Your task to perform on an android device: What's the weather? Image 0: 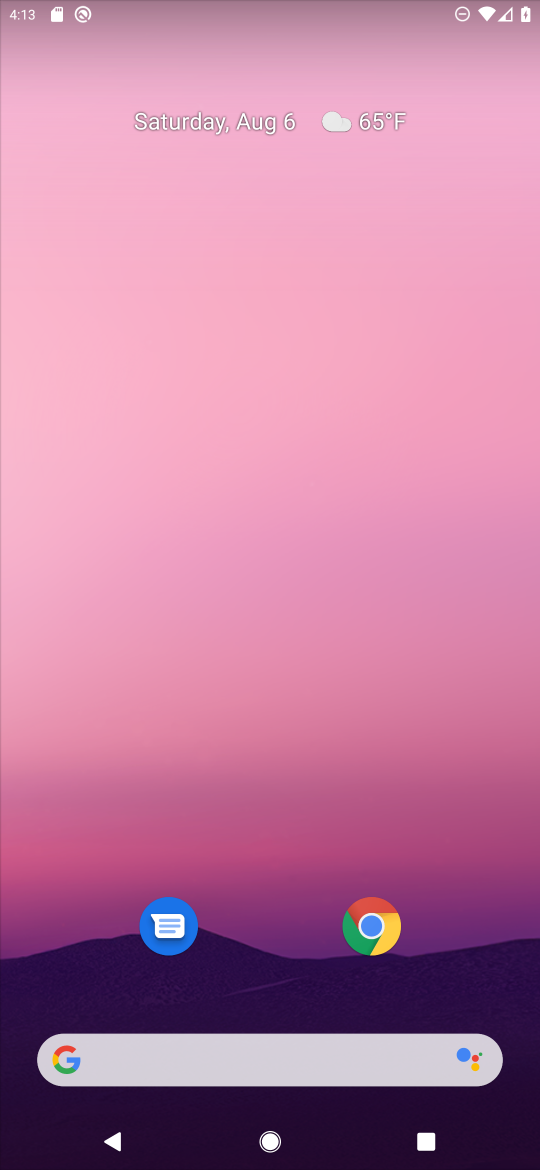
Step 0: drag from (255, 963) to (241, 471)
Your task to perform on an android device: What's the weather? Image 1: 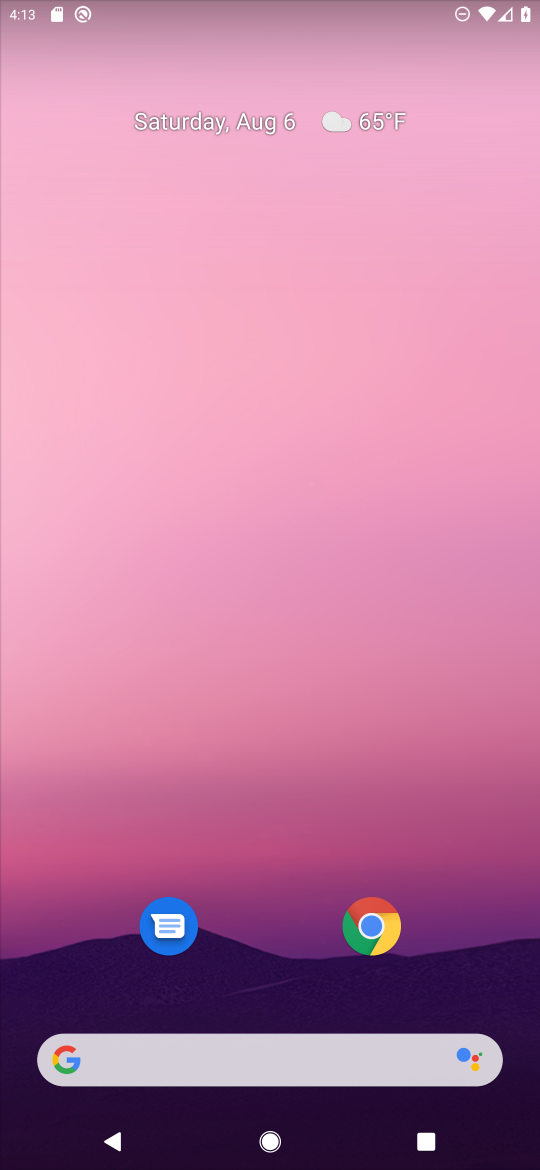
Step 1: drag from (277, 907) to (222, 353)
Your task to perform on an android device: What's the weather? Image 2: 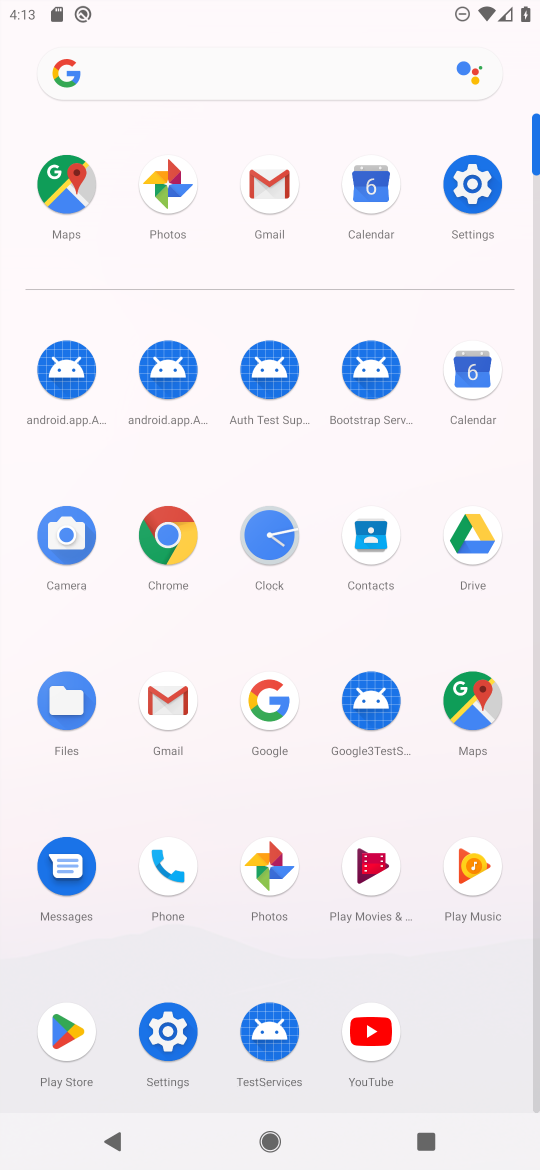
Step 2: click (273, 725)
Your task to perform on an android device: What's the weather? Image 3: 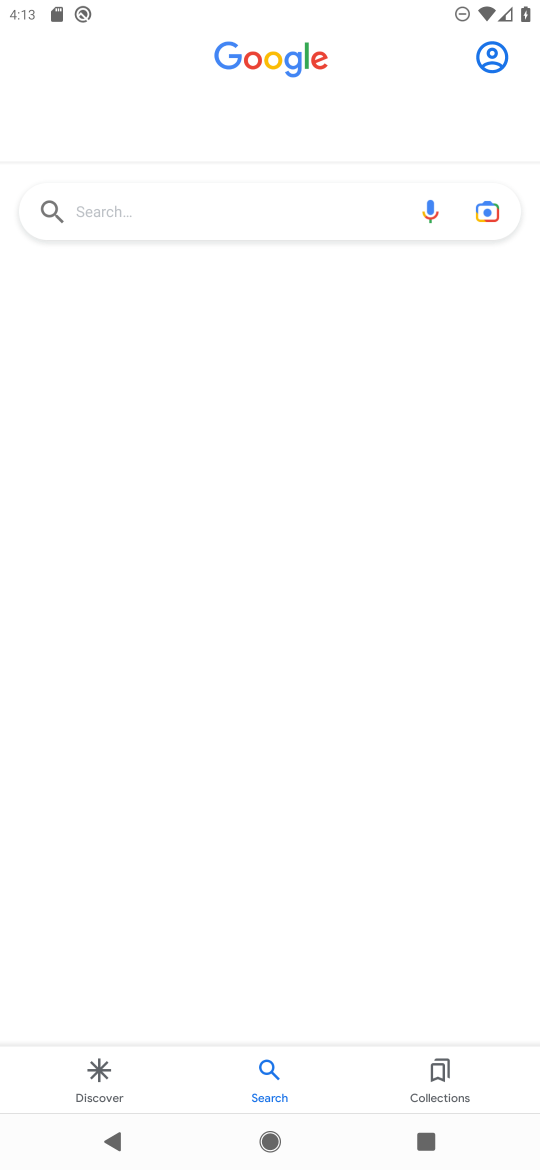
Step 3: click (221, 190)
Your task to perform on an android device: What's the weather? Image 4: 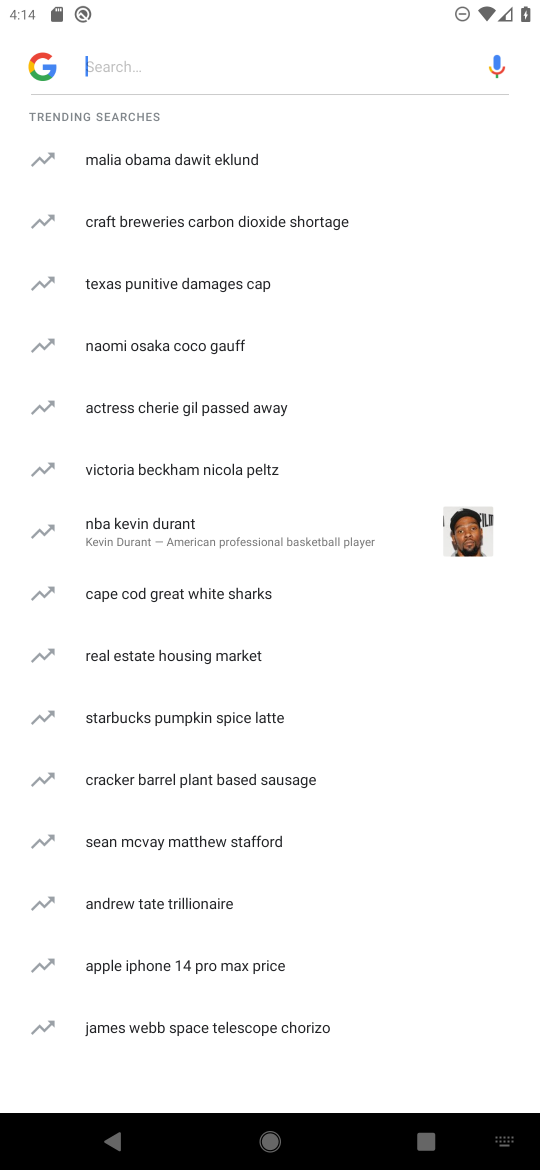
Step 4: type "weather"
Your task to perform on an android device: What's the weather? Image 5: 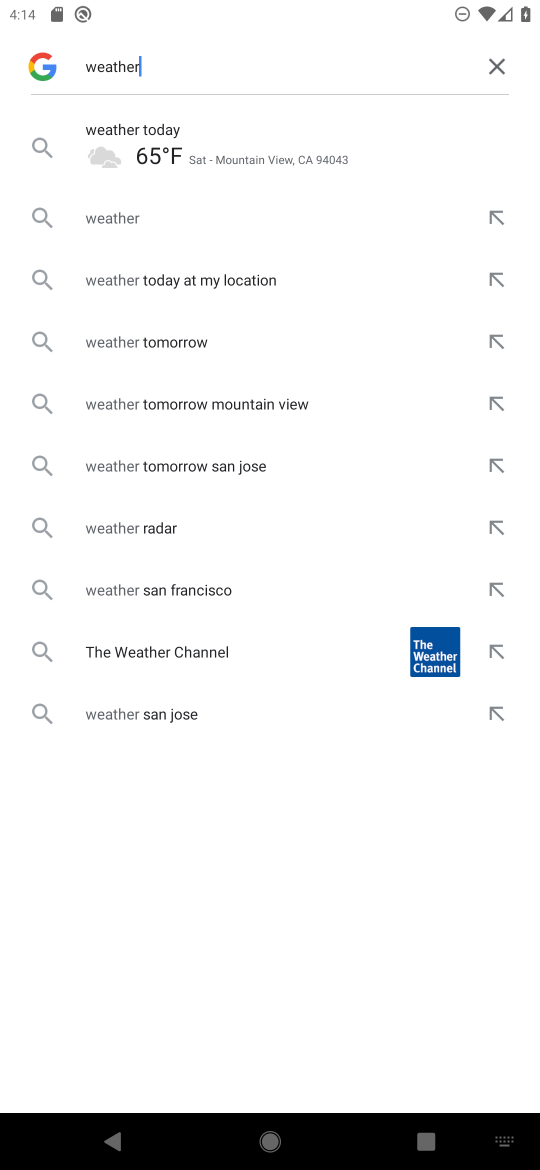
Step 5: click (233, 143)
Your task to perform on an android device: What's the weather? Image 6: 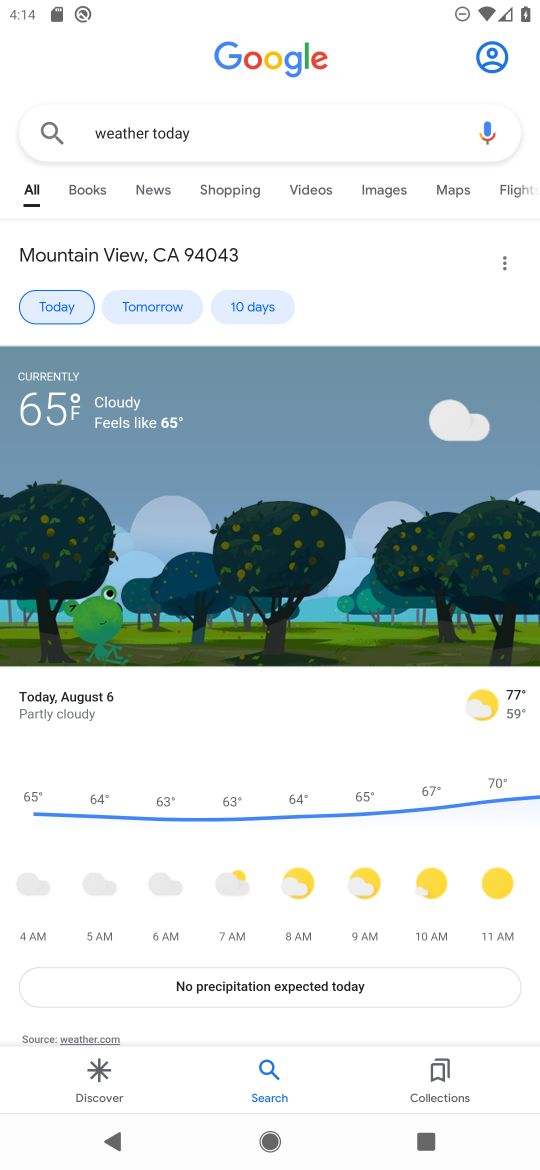
Step 6: task complete